Your task to perform on an android device: stop showing notifications on the lock screen Image 0: 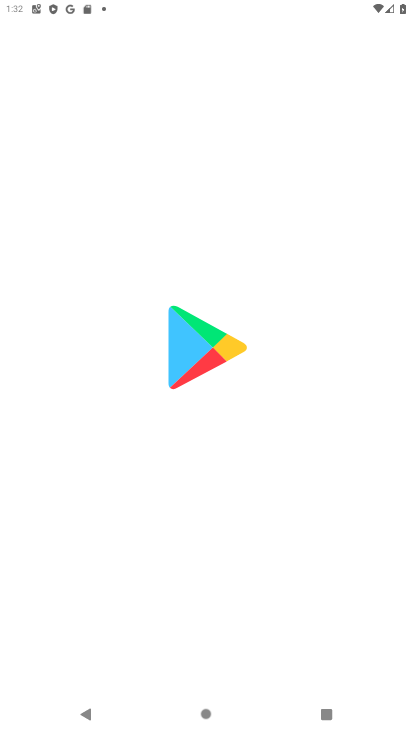
Step 0: press home button
Your task to perform on an android device: stop showing notifications on the lock screen Image 1: 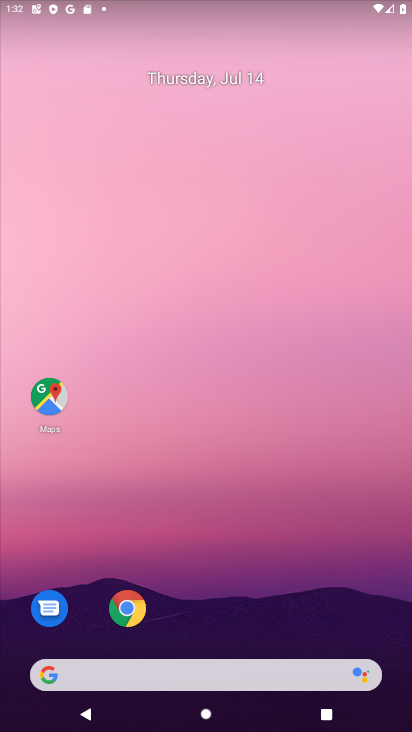
Step 1: drag from (242, 688) to (124, 202)
Your task to perform on an android device: stop showing notifications on the lock screen Image 2: 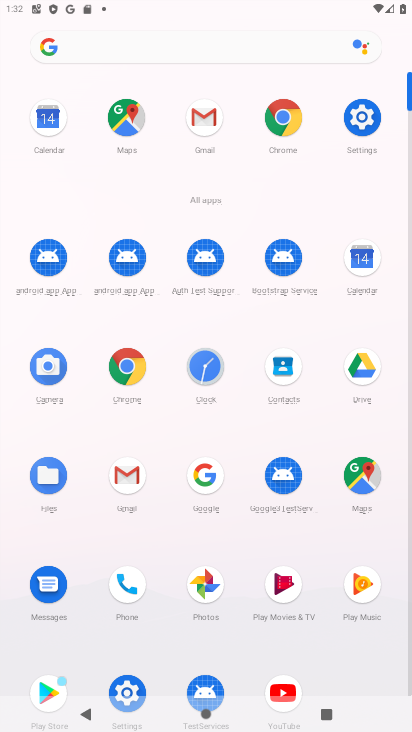
Step 2: click (360, 126)
Your task to perform on an android device: stop showing notifications on the lock screen Image 3: 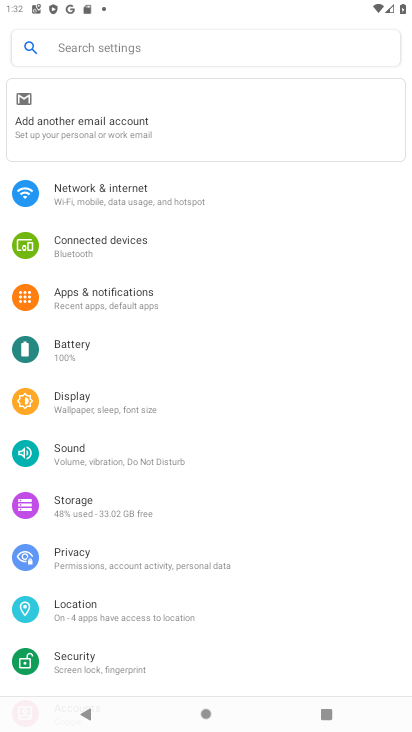
Step 3: click (114, 41)
Your task to perform on an android device: stop showing notifications on the lock screen Image 4: 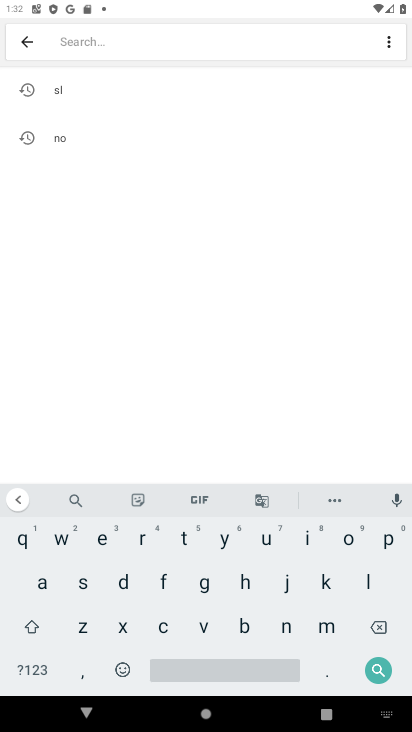
Step 4: click (59, 145)
Your task to perform on an android device: stop showing notifications on the lock screen Image 5: 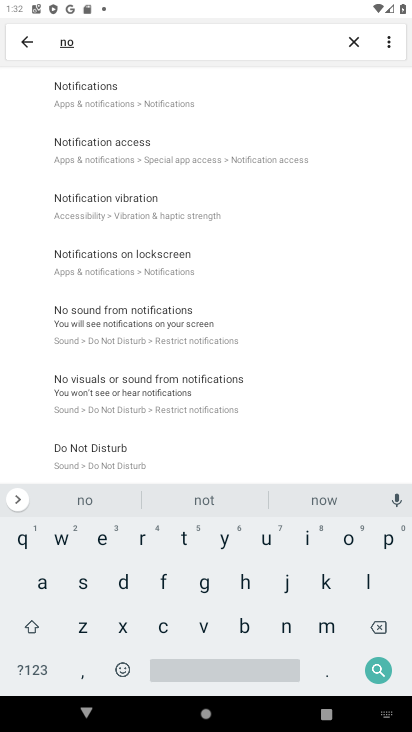
Step 5: click (99, 88)
Your task to perform on an android device: stop showing notifications on the lock screen Image 6: 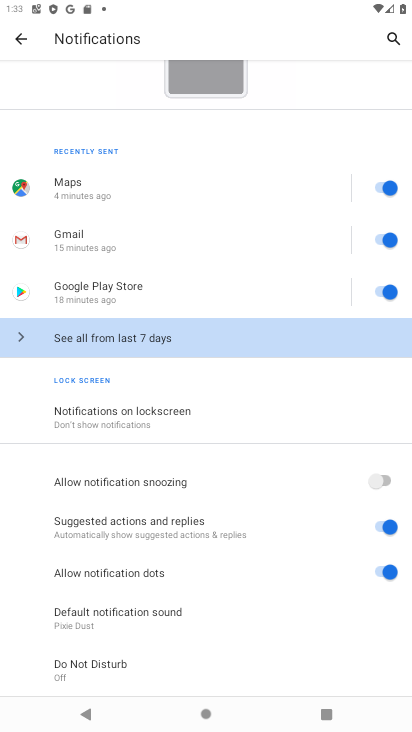
Step 6: click (86, 405)
Your task to perform on an android device: stop showing notifications on the lock screen Image 7: 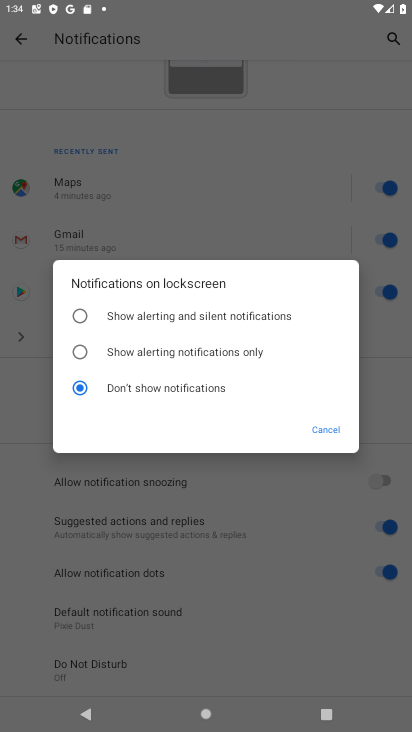
Step 7: task complete